Your task to perform on an android device: turn on priority inbox in the gmail app Image 0: 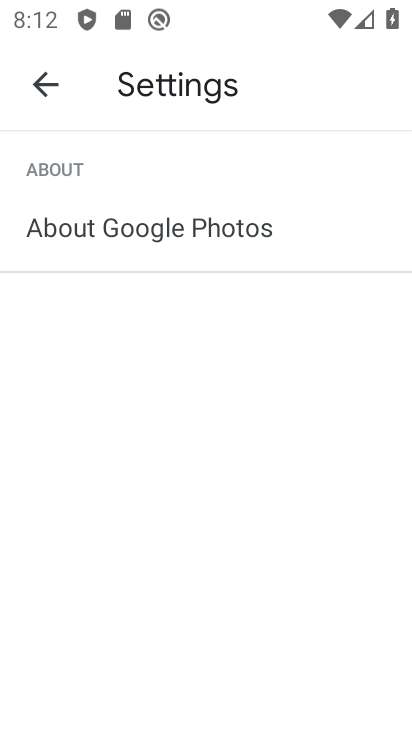
Step 0: press home button
Your task to perform on an android device: turn on priority inbox in the gmail app Image 1: 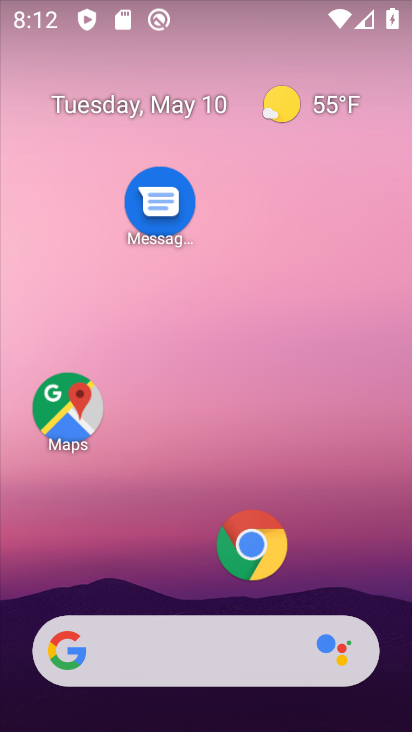
Step 1: drag from (182, 582) to (255, 202)
Your task to perform on an android device: turn on priority inbox in the gmail app Image 2: 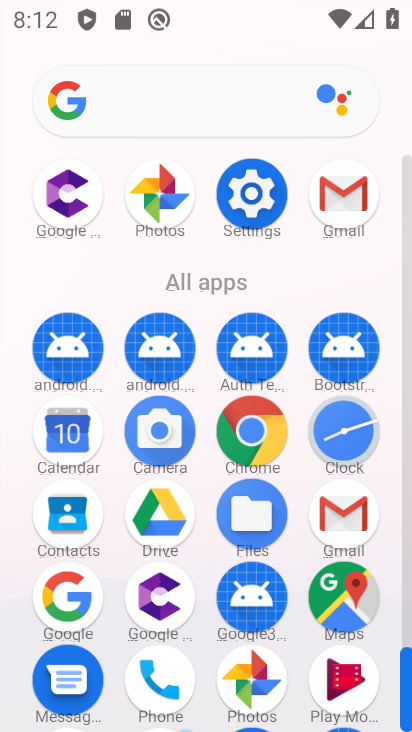
Step 2: click (348, 179)
Your task to perform on an android device: turn on priority inbox in the gmail app Image 3: 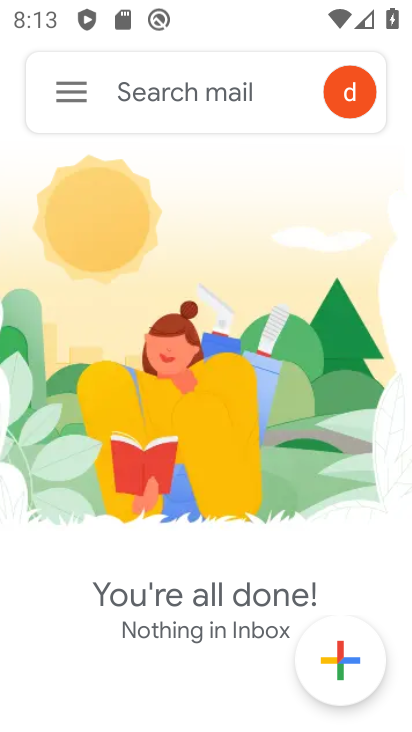
Step 3: click (76, 99)
Your task to perform on an android device: turn on priority inbox in the gmail app Image 4: 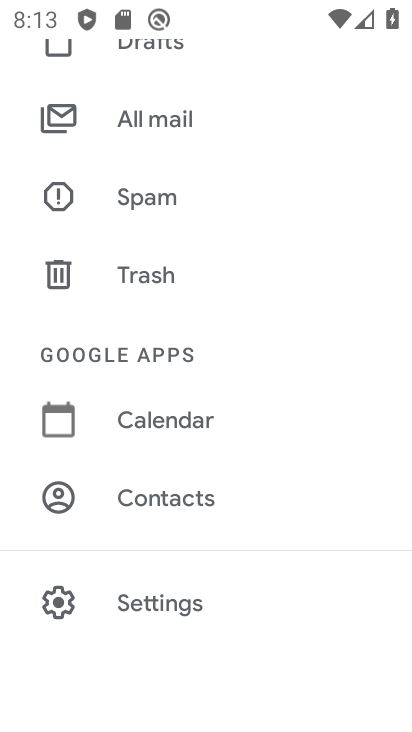
Step 4: click (185, 617)
Your task to perform on an android device: turn on priority inbox in the gmail app Image 5: 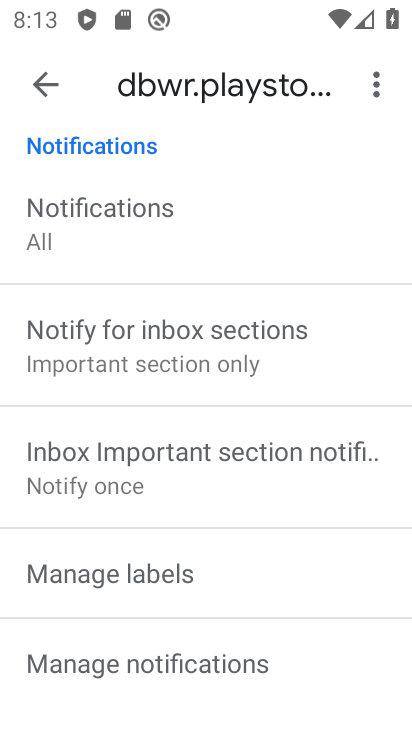
Step 5: drag from (197, 617) to (215, 269)
Your task to perform on an android device: turn on priority inbox in the gmail app Image 6: 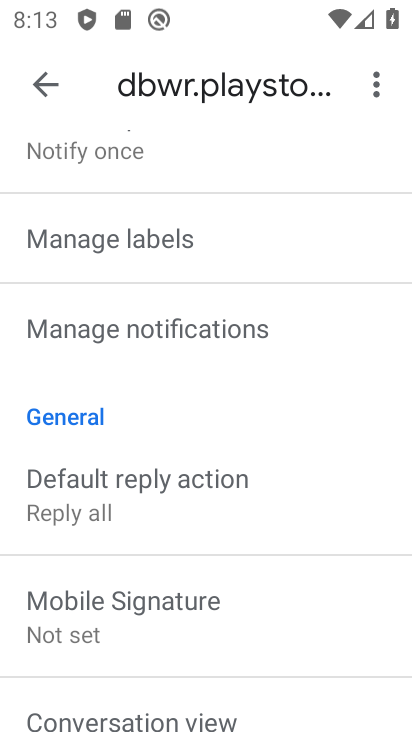
Step 6: drag from (219, 579) to (229, 276)
Your task to perform on an android device: turn on priority inbox in the gmail app Image 7: 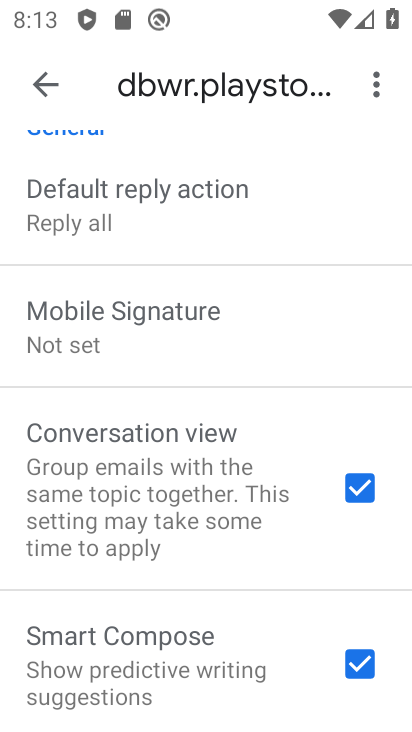
Step 7: drag from (215, 205) to (257, 519)
Your task to perform on an android device: turn on priority inbox in the gmail app Image 8: 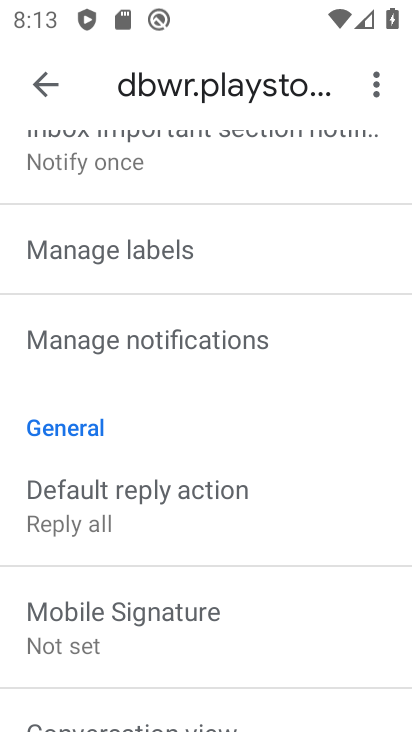
Step 8: drag from (217, 227) to (252, 518)
Your task to perform on an android device: turn on priority inbox in the gmail app Image 9: 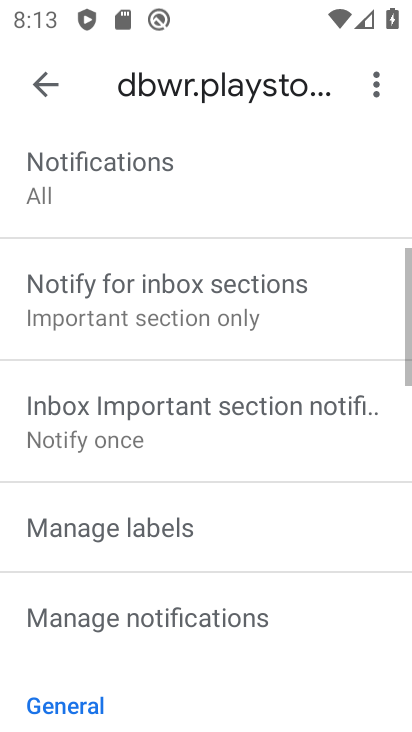
Step 9: drag from (236, 200) to (246, 477)
Your task to perform on an android device: turn on priority inbox in the gmail app Image 10: 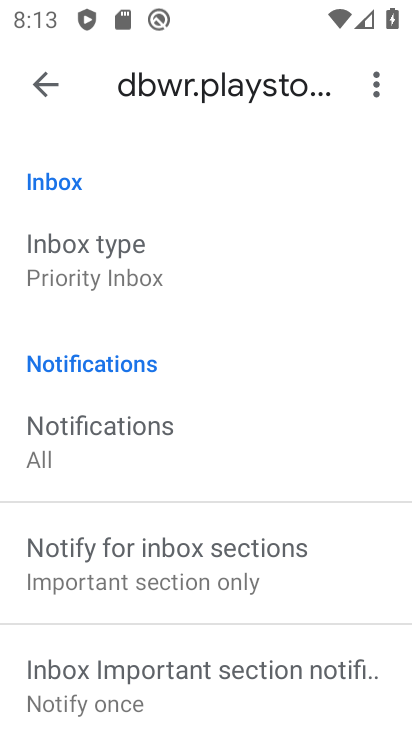
Step 10: click (153, 284)
Your task to perform on an android device: turn on priority inbox in the gmail app Image 11: 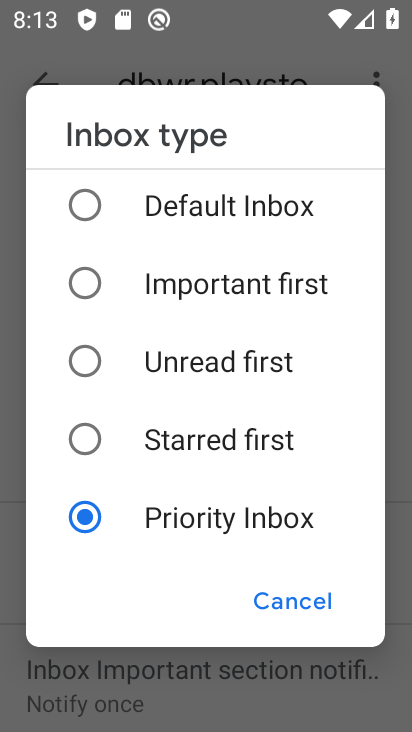
Step 11: task complete